Your task to perform on an android device: snooze an email in the gmail app Image 0: 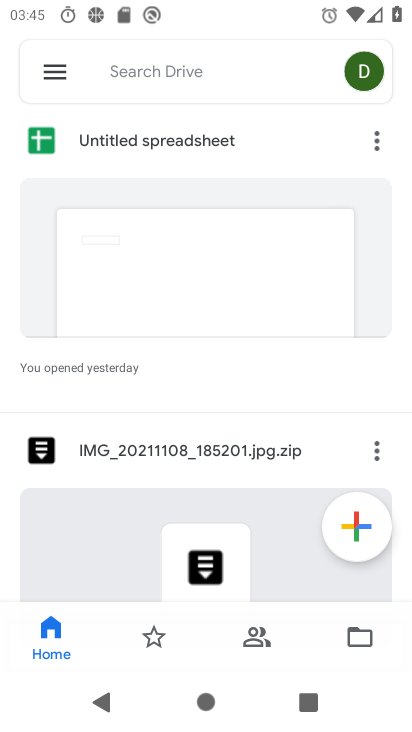
Step 0: press back button
Your task to perform on an android device: snooze an email in the gmail app Image 1: 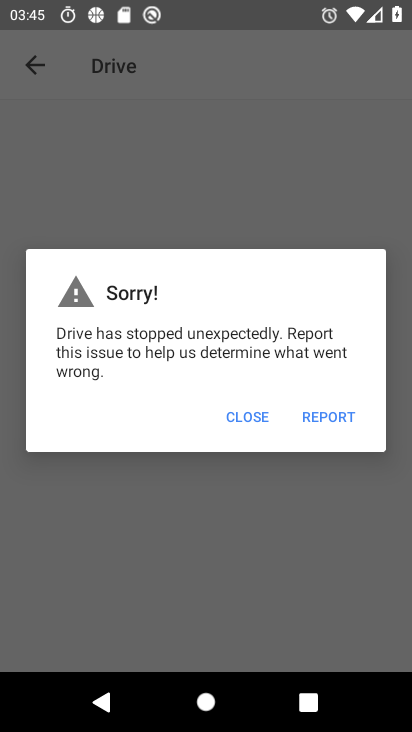
Step 1: press home button
Your task to perform on an android device: snooze an email in the gmail app Image 2: 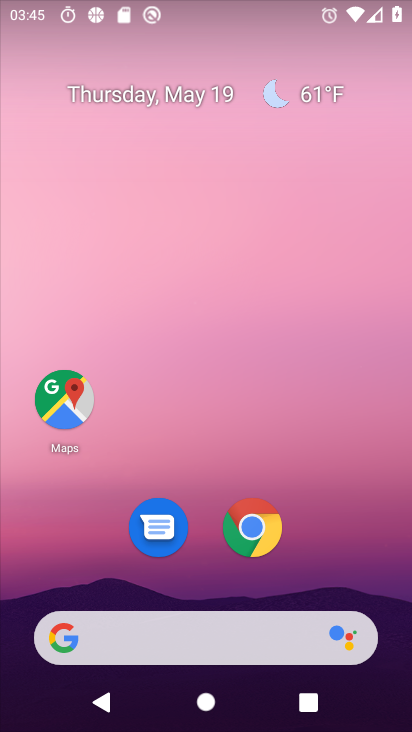
Step 2: drag from (194, 534) to (244, 57)
Your task to perform on an android device: snooze an email in the gmail app Image 3: 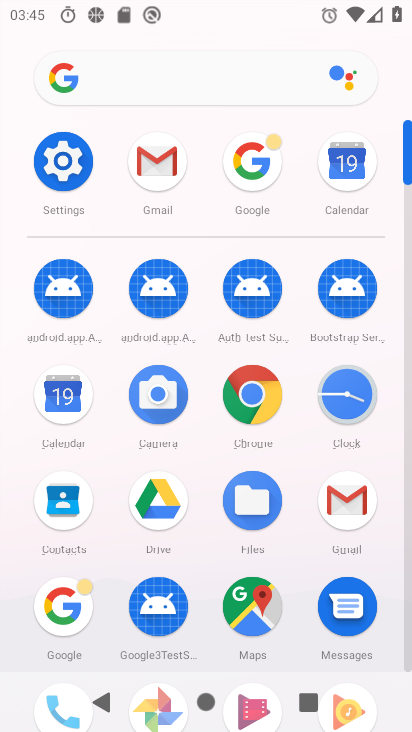
Step 3: click (143, 156)
Your task to perform on an android device: snooze an email in the gmail app Image 4: 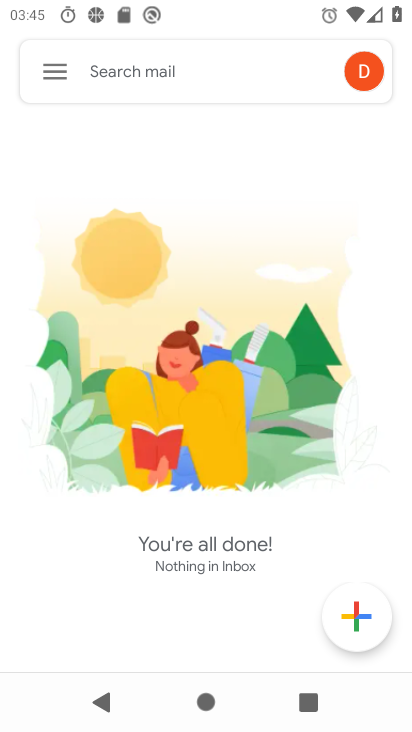
Step 4: click (50, 66)
Your task to perform on an android device: snooze an email in the gmail app Image 5: 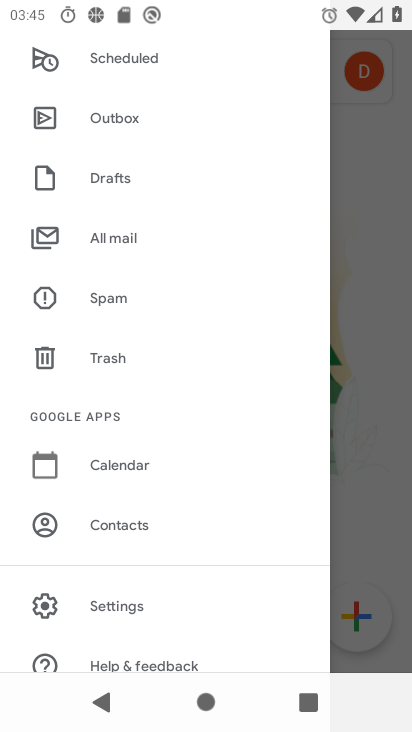
Step 5: drag from (200, 147) to (188, 542)
Your task to perform on an android device: snooze an email in the gmail app Image 6: 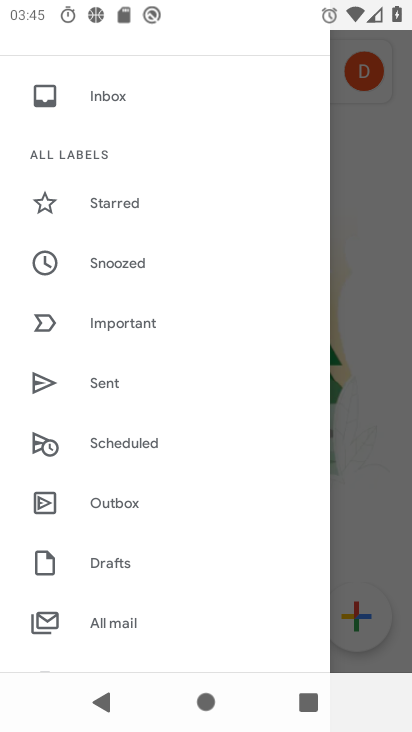
Step 6: click (112, 626)
Your task to perform on an android device: snooze an email in the gmail app Image 7: 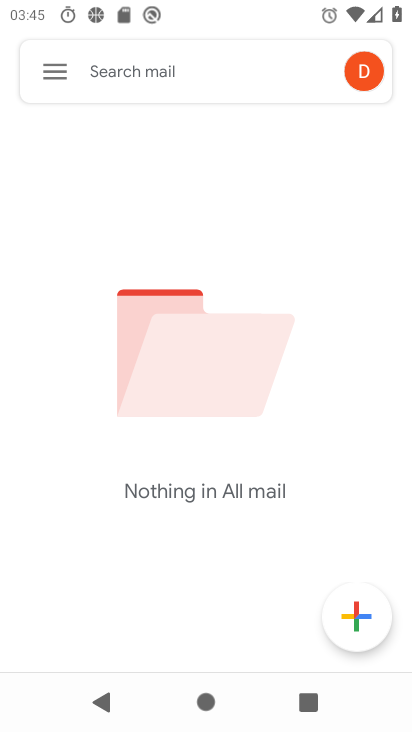
Step 7: task complete